Your task to perform on an android device: add a label to a message in the gmail app Image 0: 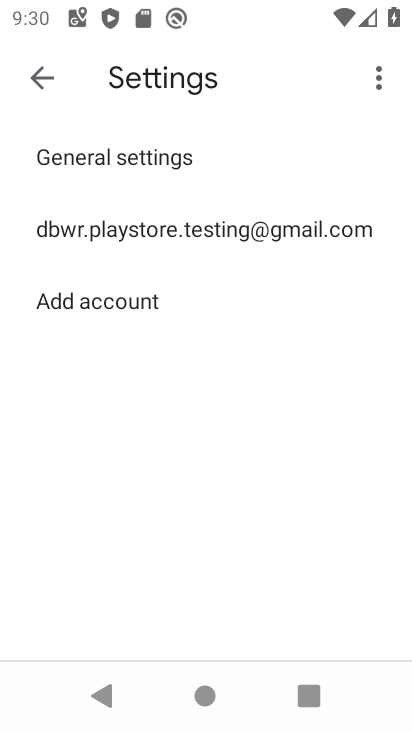
Step 0: press home button
Your task to perform on an android device: add a label to a message in the gmail app Image 1: 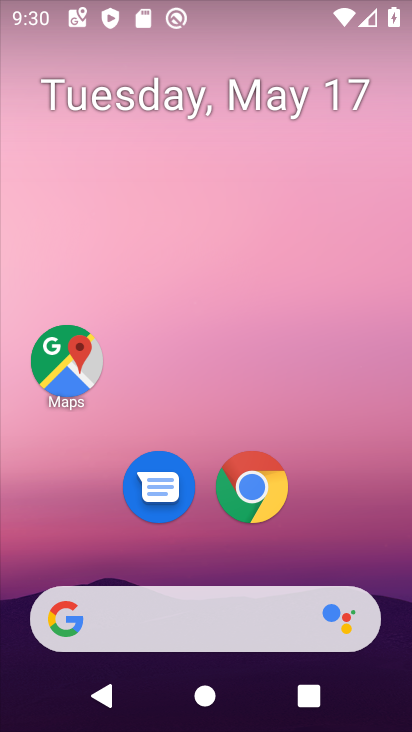
Step 1: drag from (269, 629) to (211, 342)
Your task to perform on an android device: add a label to a message in the gmail app Image 2: 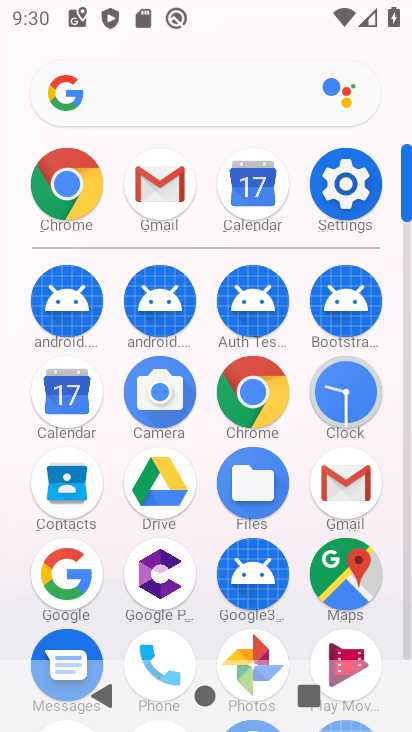
Step 2: click (351, 497)
Your task to perform on an android device: add a label to a message in the gmail app Image 3: 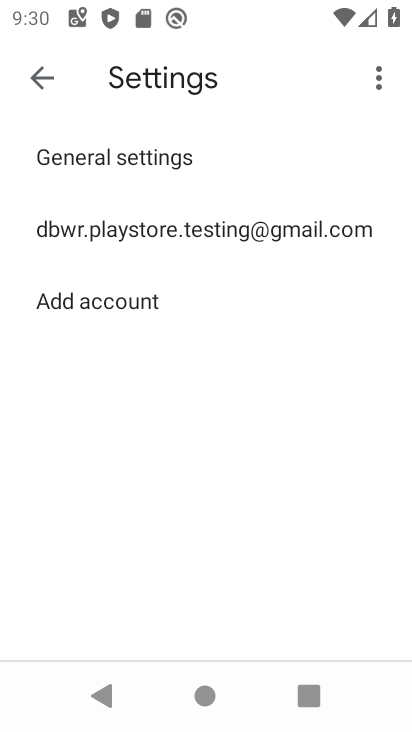
Step 3: click (163, 225)
Your task to perform on an android device: add a label to a message in the gmail app Image 4: 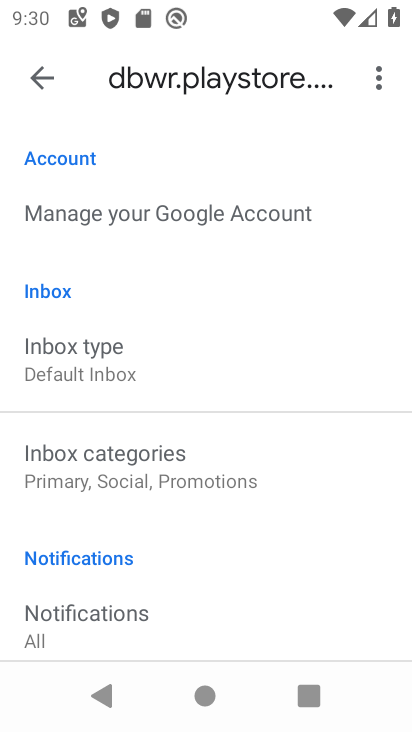
Step 4: drag from (218, 434) to (192, 256)
Your task to perform on an android device: add a label to a message in the gmail app Image 5: 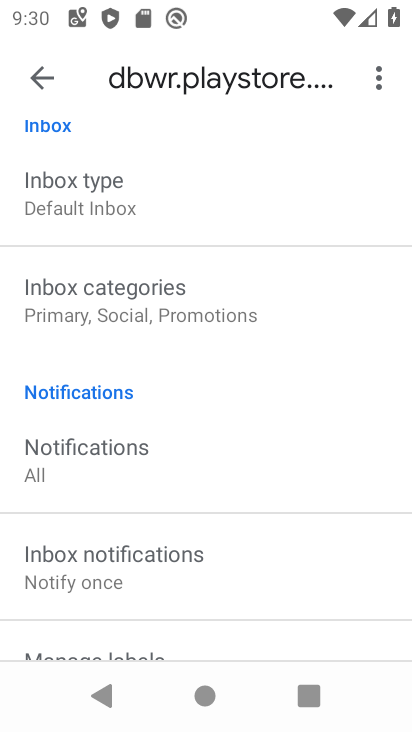
Step 5: drag from (186, 426) to (157, 276)
Your task to perform on an android device: add a label to a message in the gmail app Image 6: 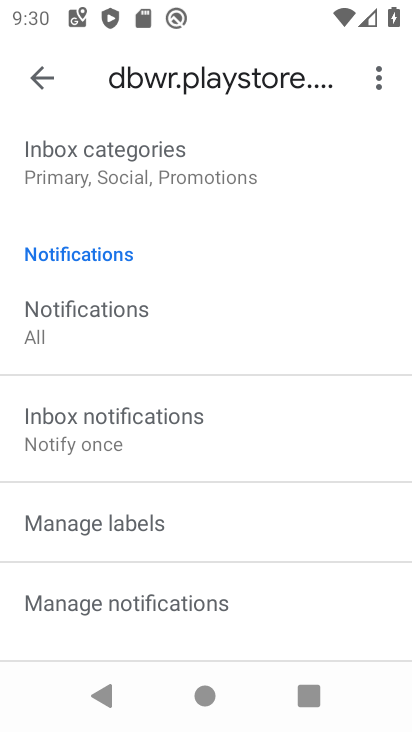
Step 6: click (206, 521)
Your task to perform on an android device: add a label to a message in the gmail app Image 7: 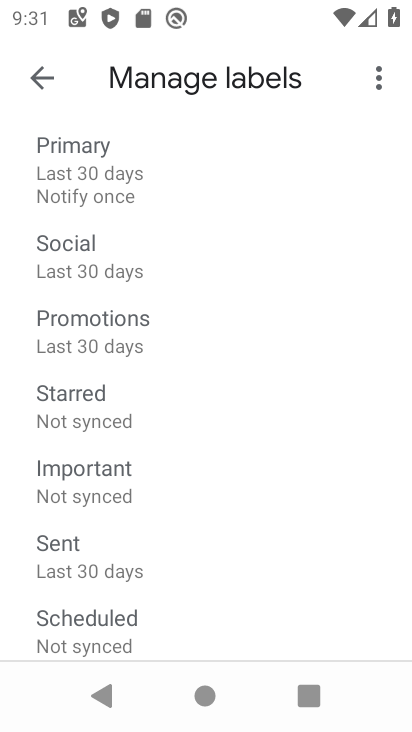
Step 7: click (155, 418)
Your task to perform on an android device: add a label to a message in the gmail app Image 8: 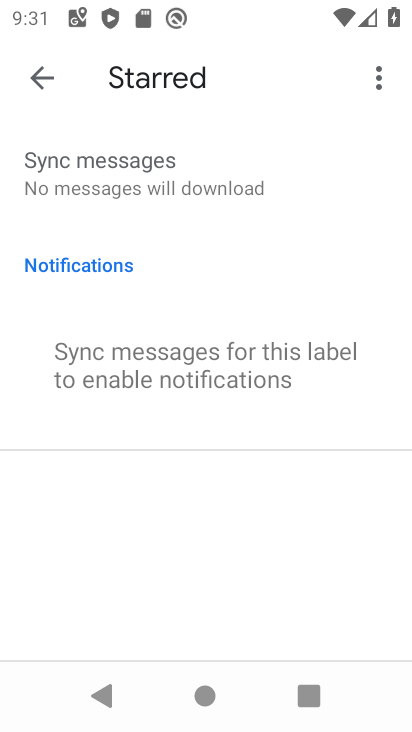
Step 8: task complete